Your task to perform on an android device: Open calendar and show me the fourth week of next month Image 0: 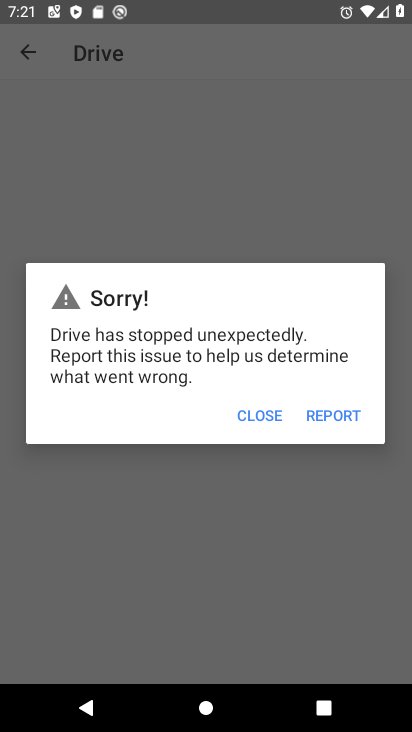
Step 0: press back button
Your task to perform on an android device: Open calendar and show me the fourth week of next month Image 1: 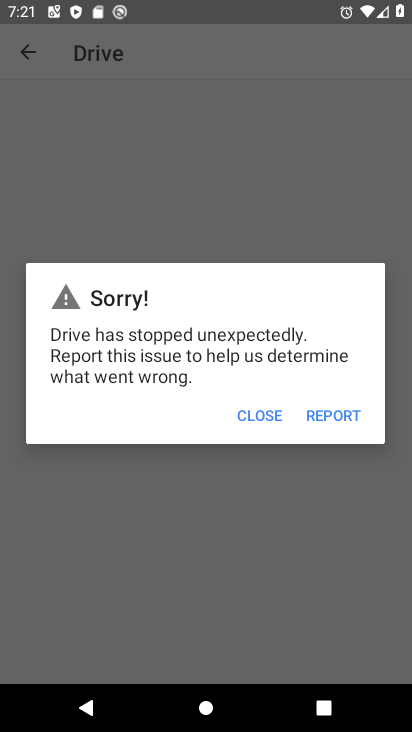
Step 1: press home button
Your task to perform on an android device: Open calendar and show me the fourth week of next month Image 2: 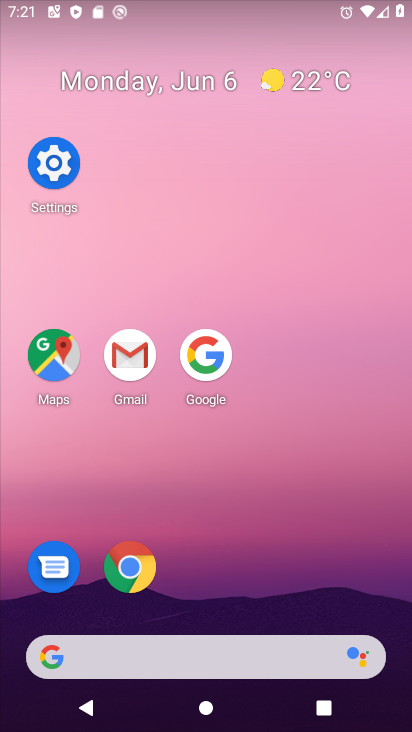
Step 2: drag from (273, 575) to (331, 155)
Your task to perform on an android device: Open calendar and show me the fourth week of next month Image 3: 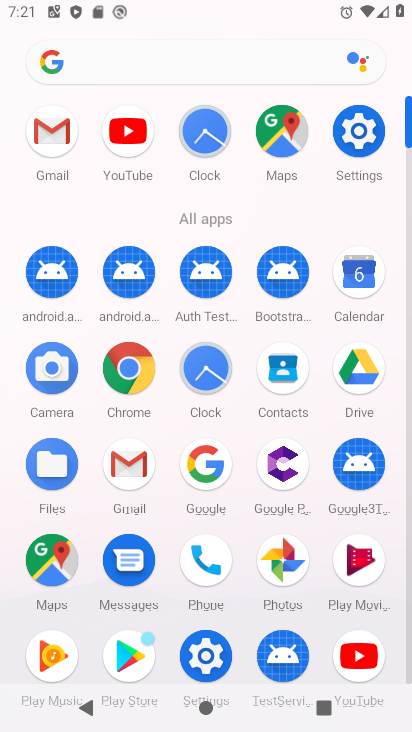
Step 3: drag from (358, 264) to (128, 213)
Your task to perform on an android device: Open calendar and show me the fourth week of next month Image 4: 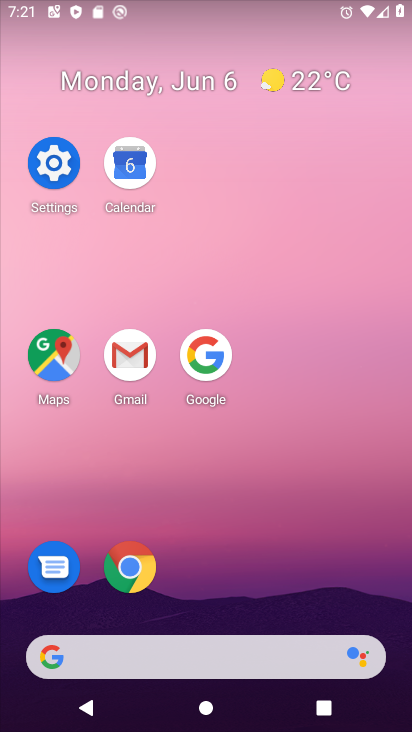
Step 4: click (129, 173)
Your task to perform on an android device: Open calendar and show me the fourth week of next month Image 5: 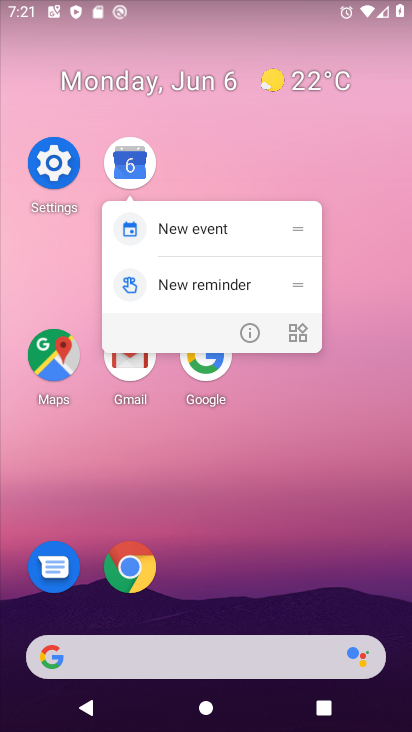
Step 5: click (129, 173)
Your task to perform on an android device: Open calendar and show me the fourth week of next month Image 6: 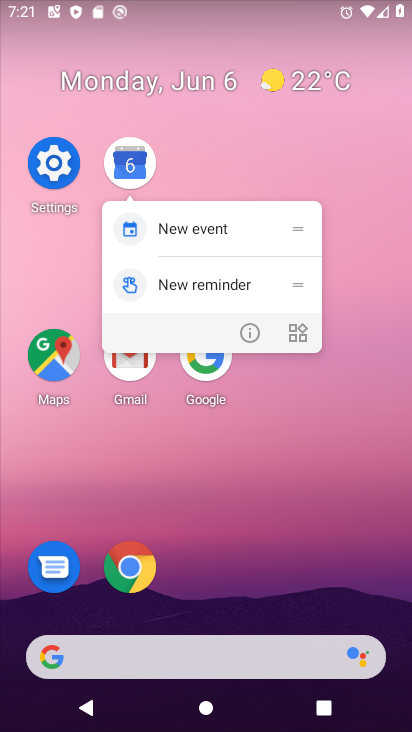
Step 6: click (129, 173)
Your task to perform on an android device: Open calendar and show me the fourth week of next month Image 7: 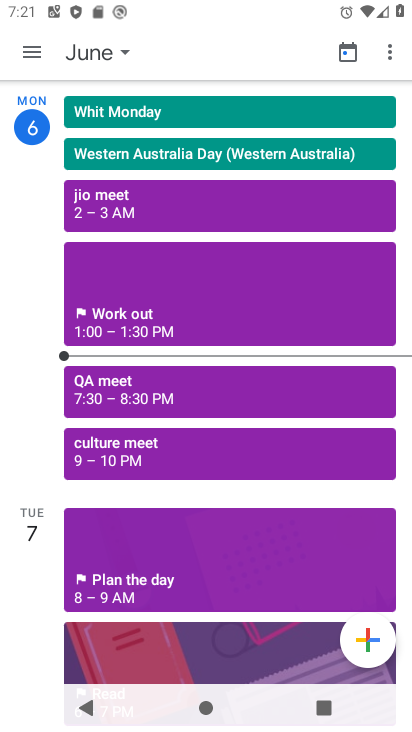
Step 7: click (122, 52)
Your task to perform on an android device: Open calendar and show me the fourth week of next month Image 8: 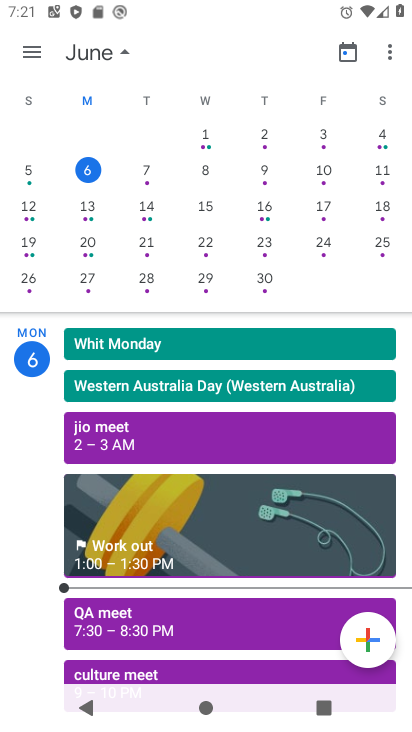
Step 8: drag from (390, 204) to (47, 212)
Your task to perform on an android device: Open calendar and show me the fourth week of next month Image 9: 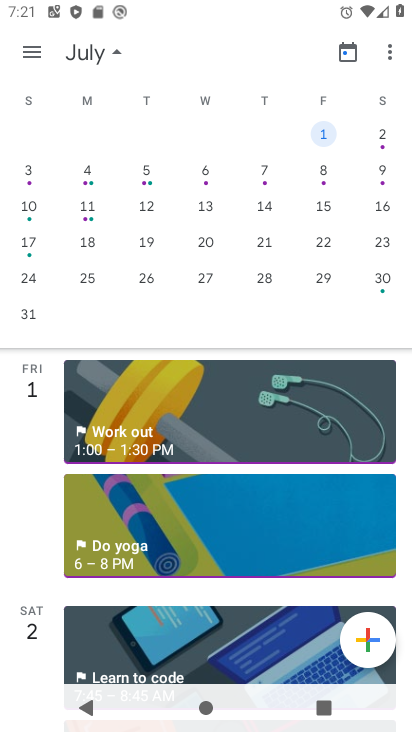
Step 9: click (28, 44)
Your task to perform on an android device: Open calendar and show me the fourth week of next month Image 10: 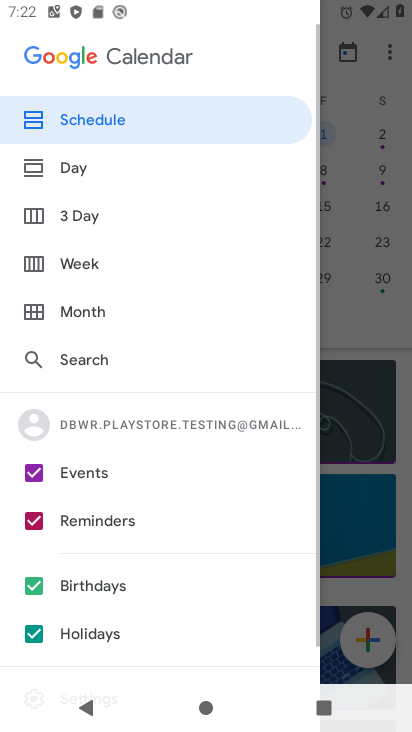
Step 10: click (65, 274)
Your task to perform on an android device: Open calendar and show me the fourth week of next month Image 11: 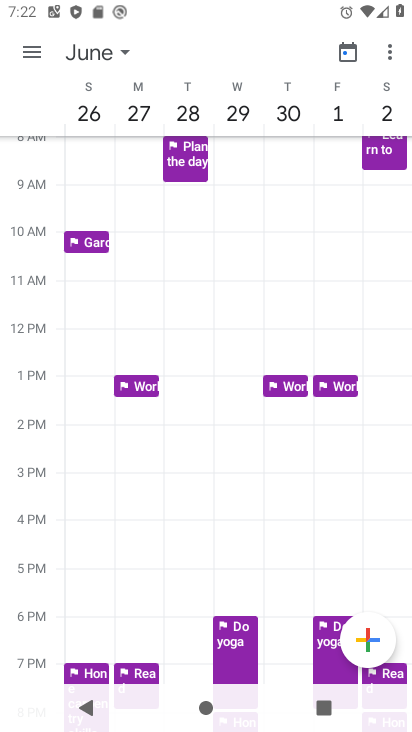
Step 11: task complete